Your task to perform on an android device: change the clock display to analog Image 0: 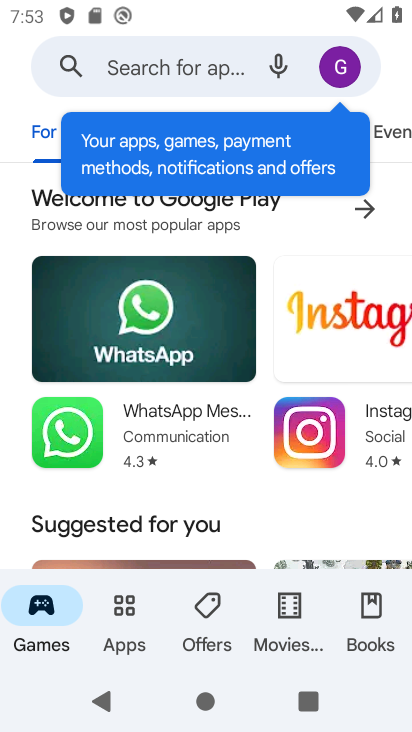
Step 0: press home button
Your task to perform on an android device: change the clock display to analog Image 1: 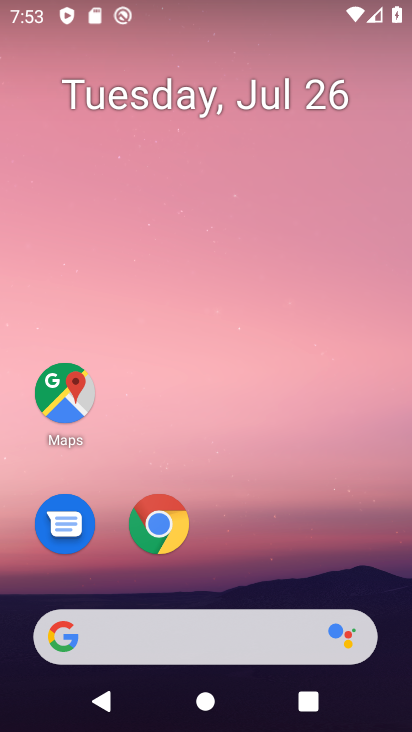
Step 1: drag from (299, 548) to (329, 24)
Your task to perform on an android device: change the clock display to analog Image 2: 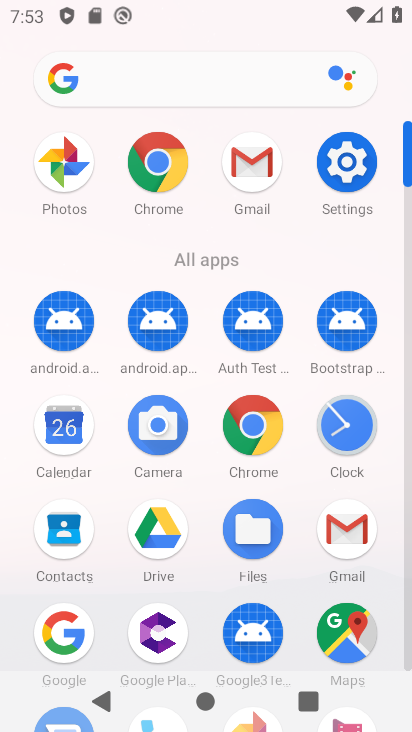
Step 2: click (350, 427)
Your task to perform on an android device: change the clock display to analog Image 3: 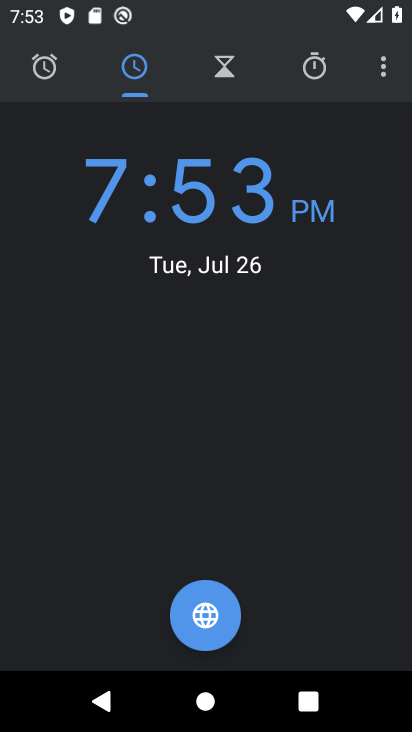
Step 3: click (377, 65)
Your task to perform on an android device: change the clock display to analog Image 4: 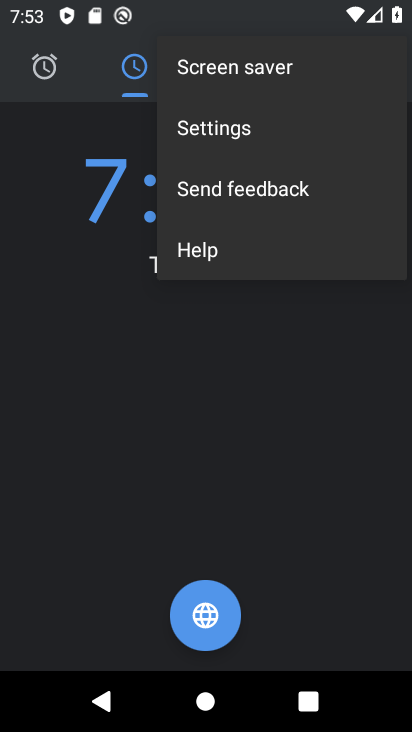
Step 4: click (250, 129)
Your task to perform on an android device: change the clock display to analog Image 5: 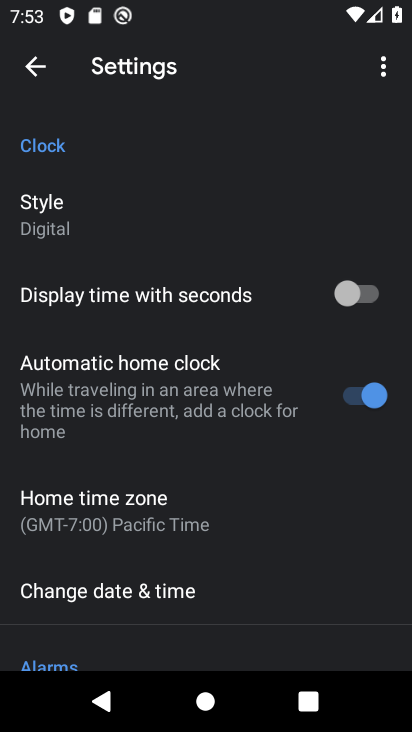
Step 5: click (65, 223)
Your task to perform on an android device: change the clock display to analog Image 6: 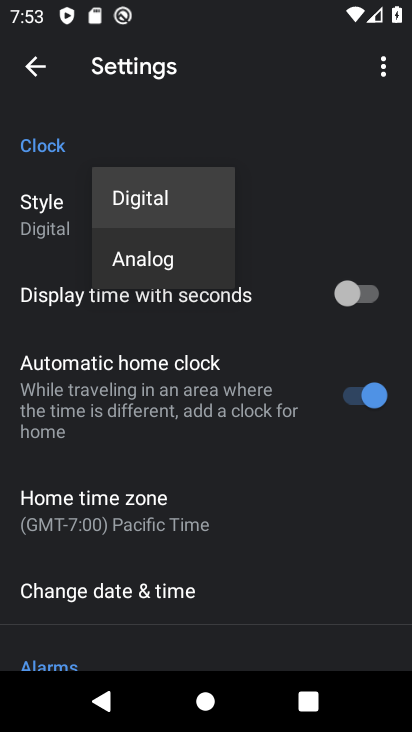
Step 6: click (109, 254)
Your task to perform on an android device: change the clock display to analog Image 7: 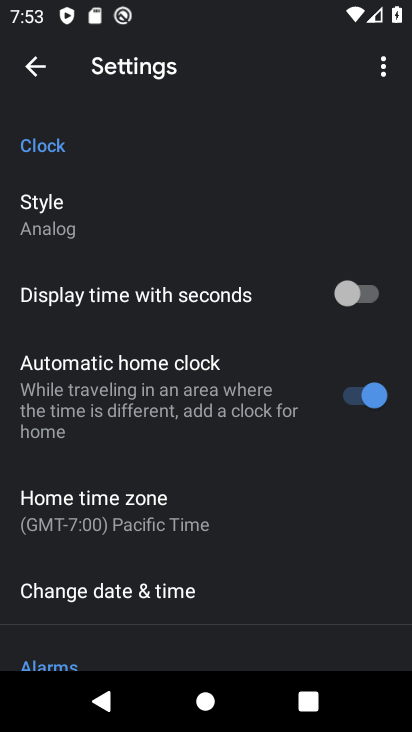
Step 7: task complete